Your task to perform on an android device: open sync settings in chrome Image 0: 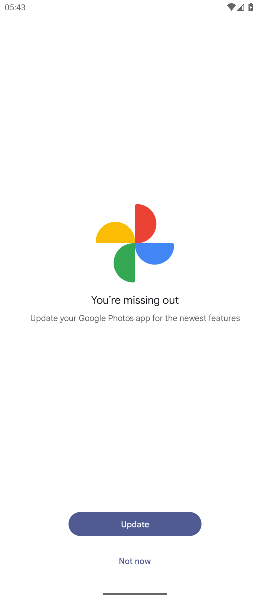
Step 0: press home button
Your task to perform on an android device: open sync settings in chrome Image 1: 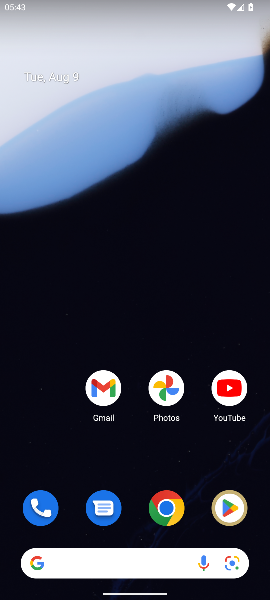
Step 1: click (163, 513)
Your task to perform on an android device: open sync settings in chrome Image 2: 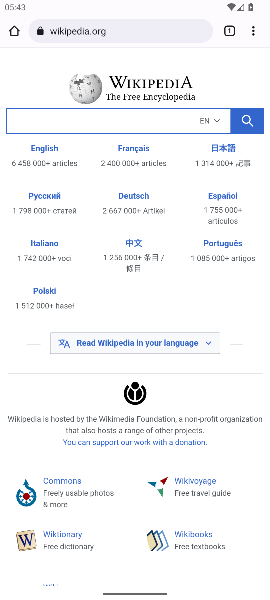
Step 2: click (257, 31)
Your task to perform on an android device: open sync settings in chrome Image 3: 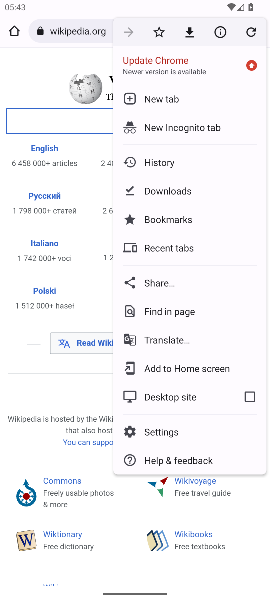
Step 3: click (161, 428)
Your task to perform on an android device: open sync settings in chrome Image 4: 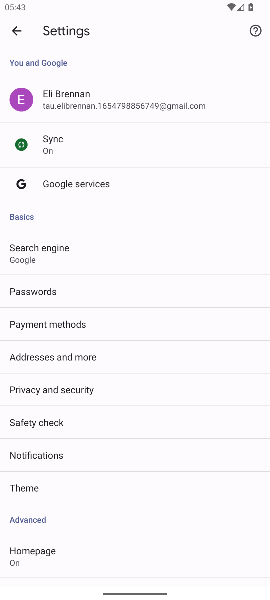
Step 4: click (99, 133)
Your task to perform on an android device: open sync settings in chrome Image 5: 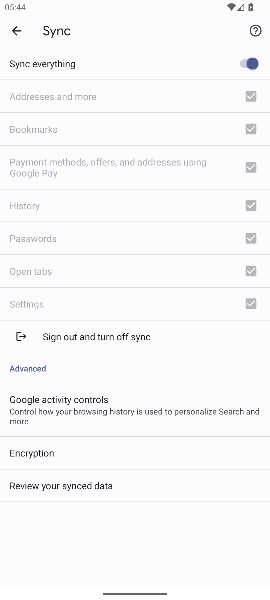
Step 5: task complete